Your task to perform on an android device: Open privacy settings Image 0: 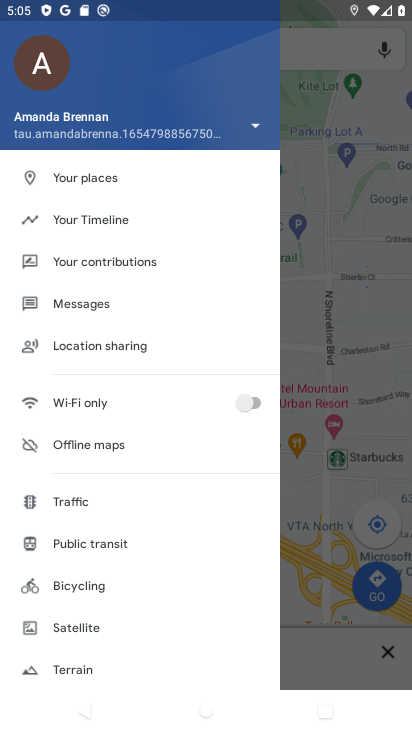
Step 0: press home button
Your task to perform on an android device: Open privacy settings Image 1: 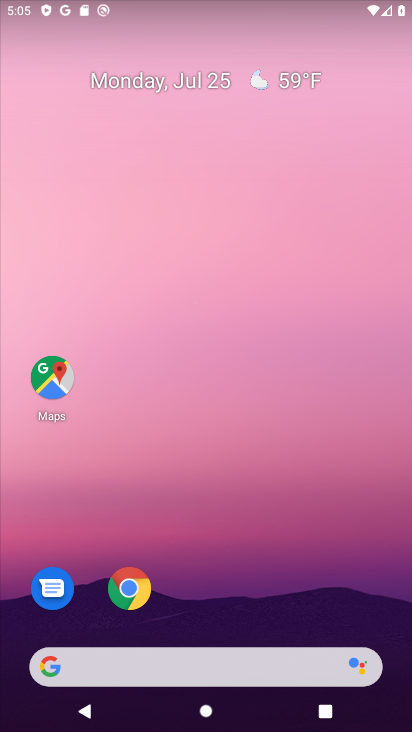
Step 1: drag from (267, 530) to (270, 127)
Your task to perform on an android device: Open privacy settings Image 2: 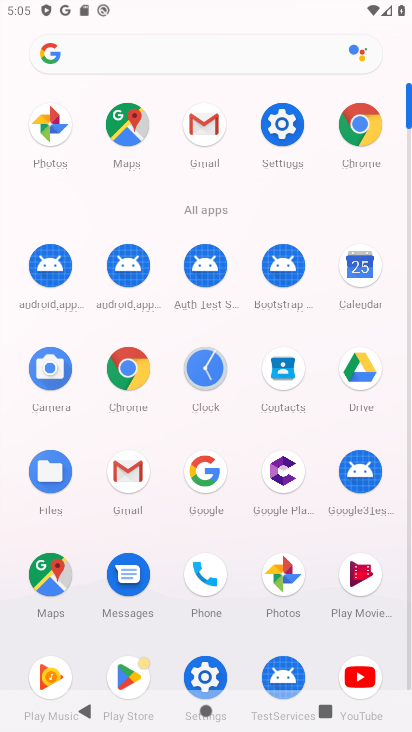
Step 2: click (280, 138)
Your task to perform on an android device: Open privacy settings Image 3: 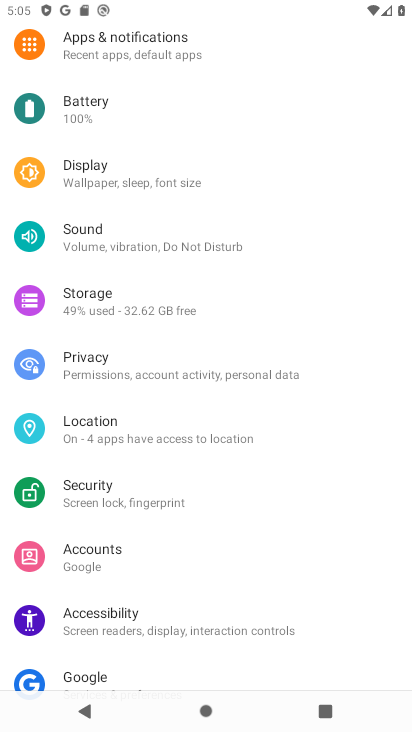
Step 3: click (121, 359)
Your task to perform on an android device: Open privacy settings Image 4: 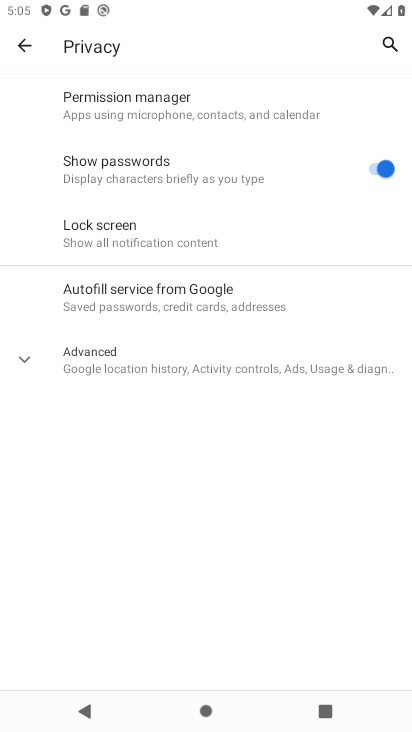
Step 4: task complete